Your task to perform on an android device: Open calendar and show me the fourth week of next month Image 0: 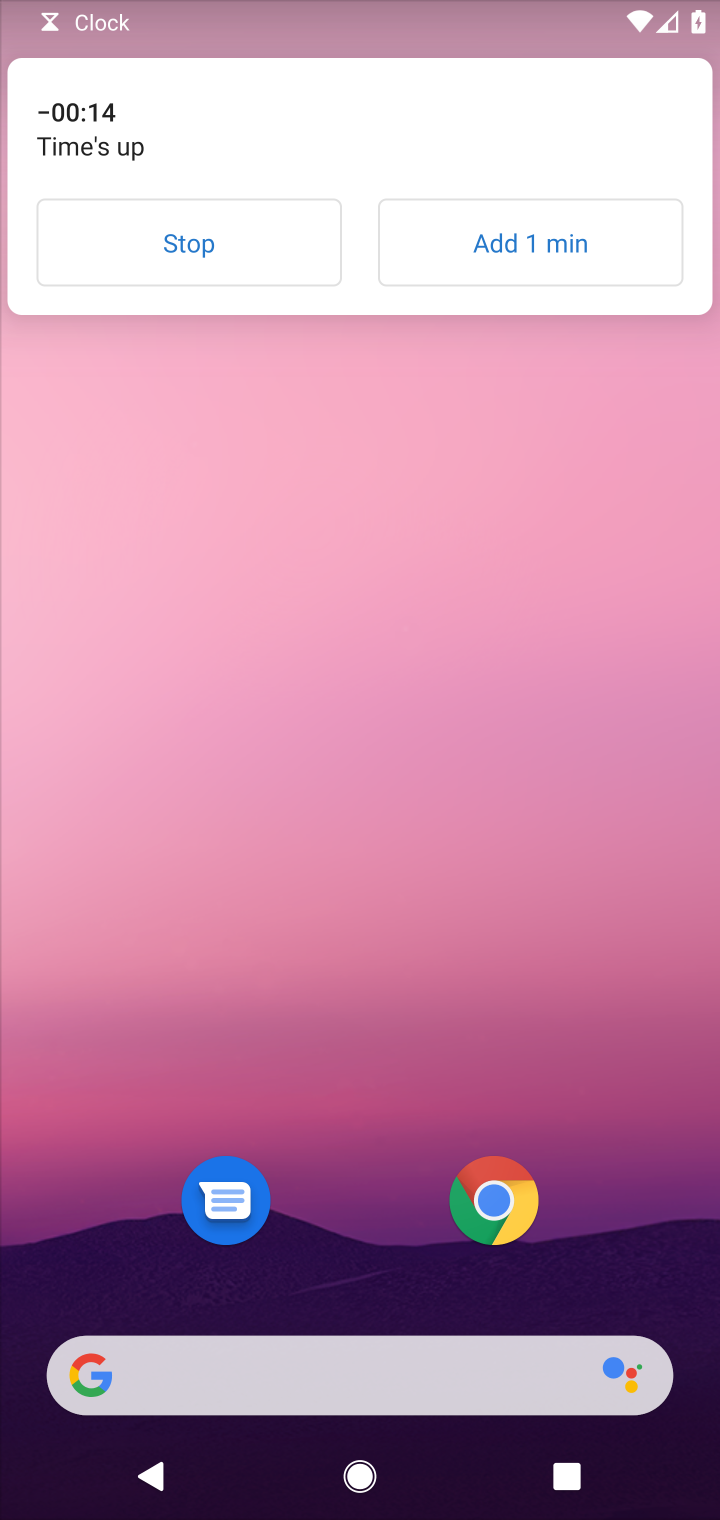
Step 0: click (219, 246)
Your task to perform on an android device: Open calendar and show me the fourth week of next month Image 1: 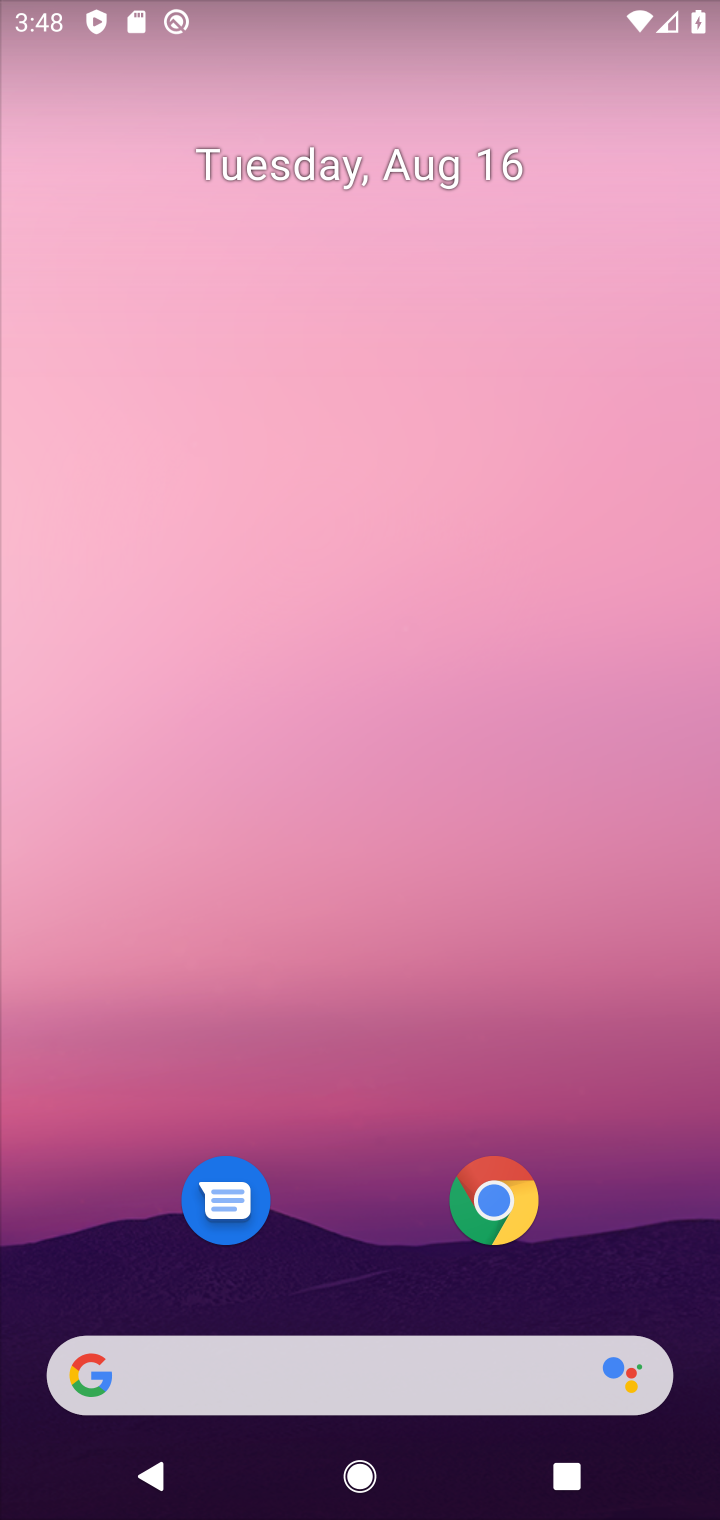
Step 1: click (332, 163)
Your task to perform on an android device: Open calendar and show me the fourth week of next month Image 2: 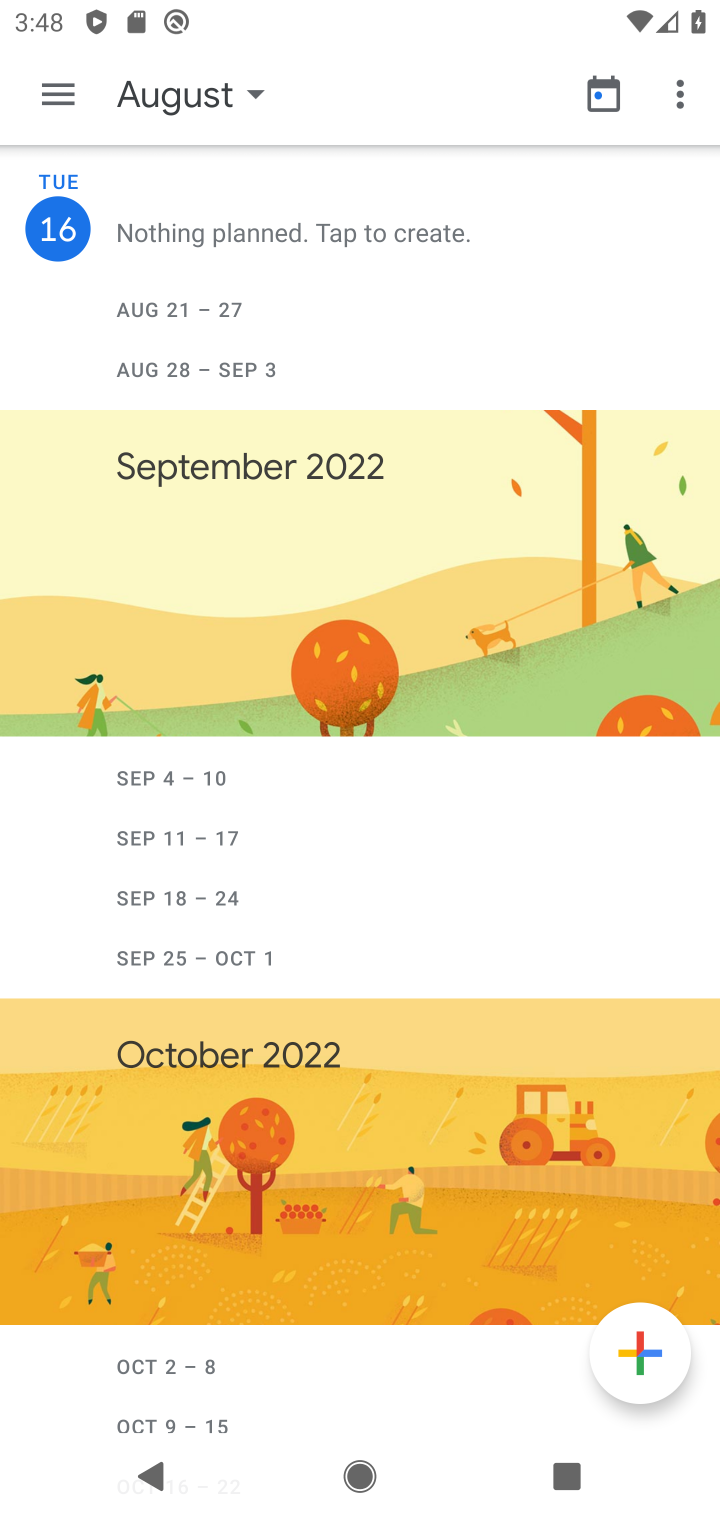
Step 2: click (217, 97)
Your task to perform on an android device: Open calendar and show me the fourth week of next month Image 3: 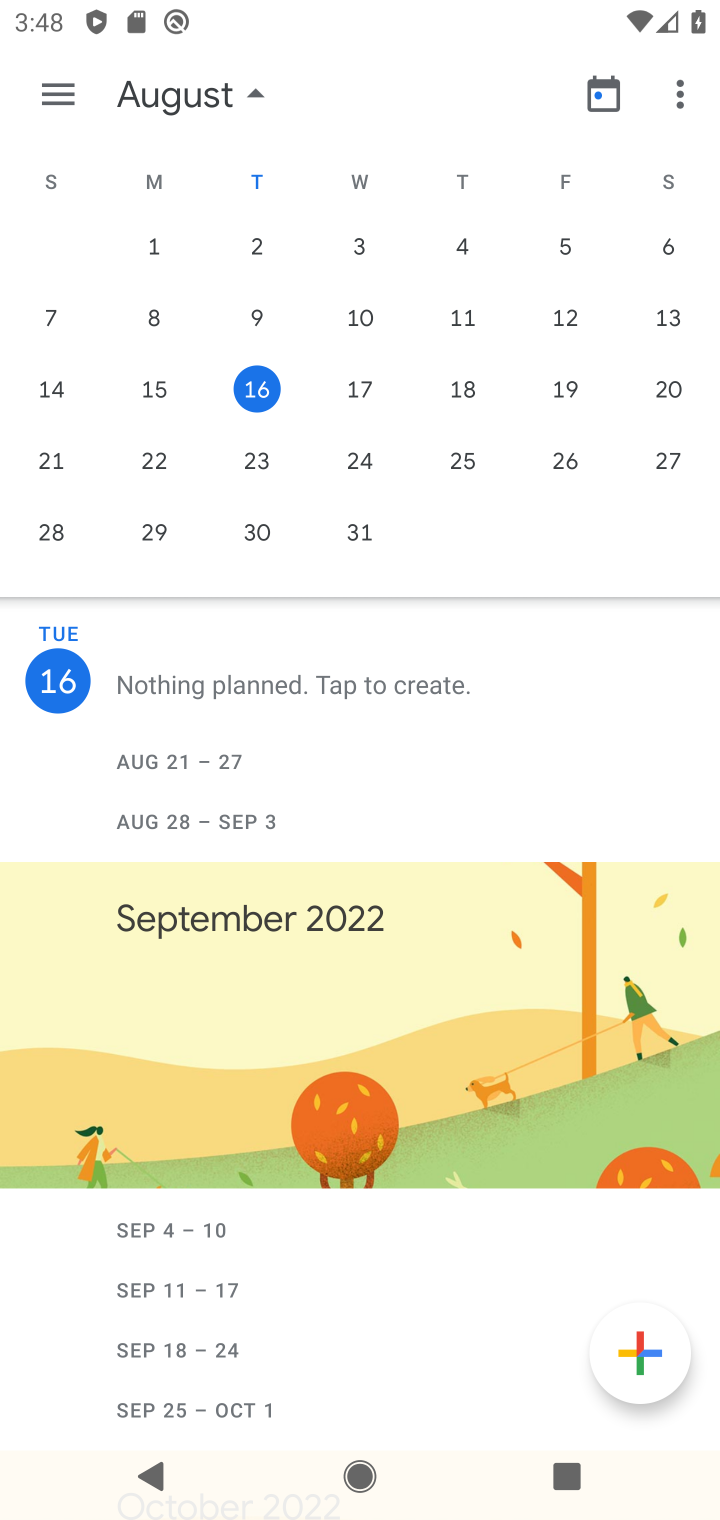
Step 3: drag from (666, 508) to (53, 351)
Your task to perform on an android device: Open calendar and show me the fourth week of next month Image 4: 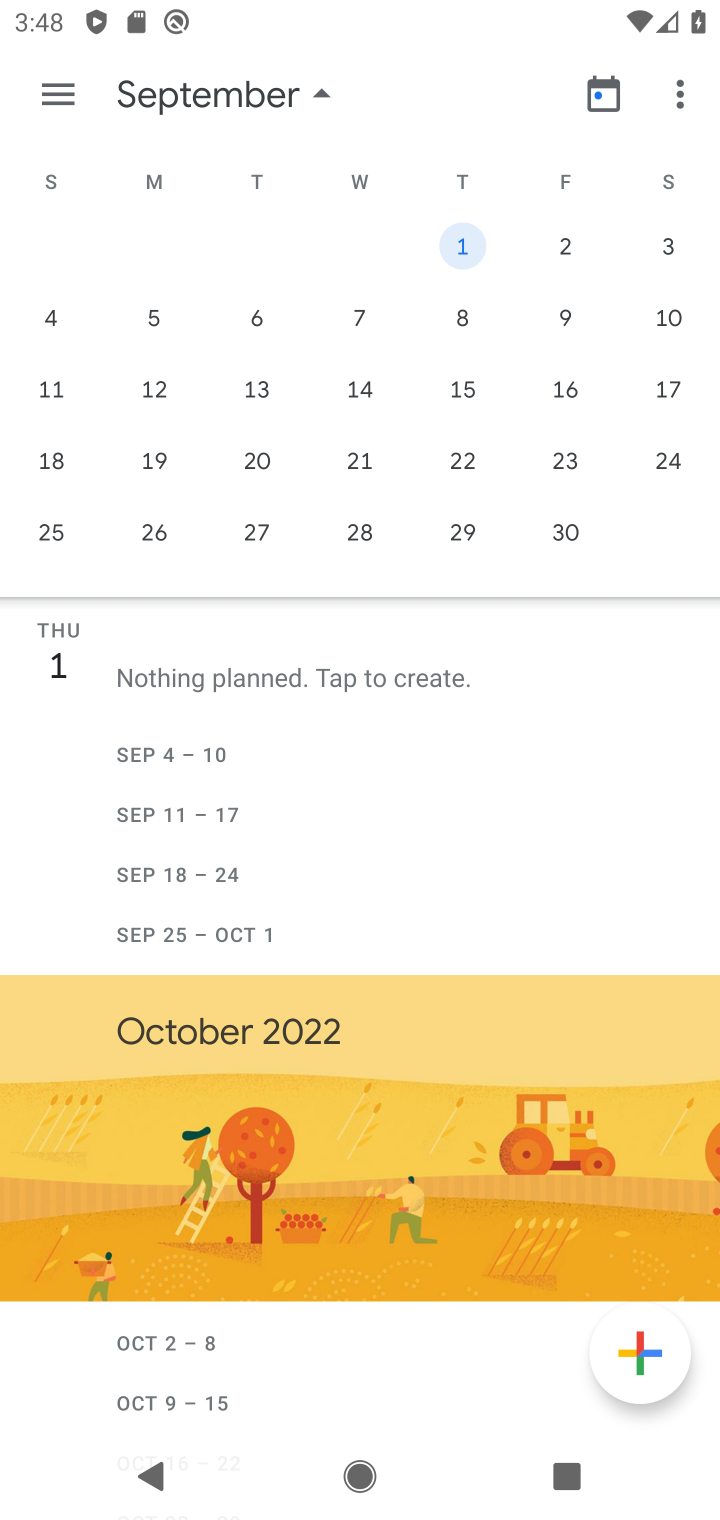
Step 4: click (468, 445)
Your task to perform on an android device: Open calendar and show me the fourth week of next month Image 5: 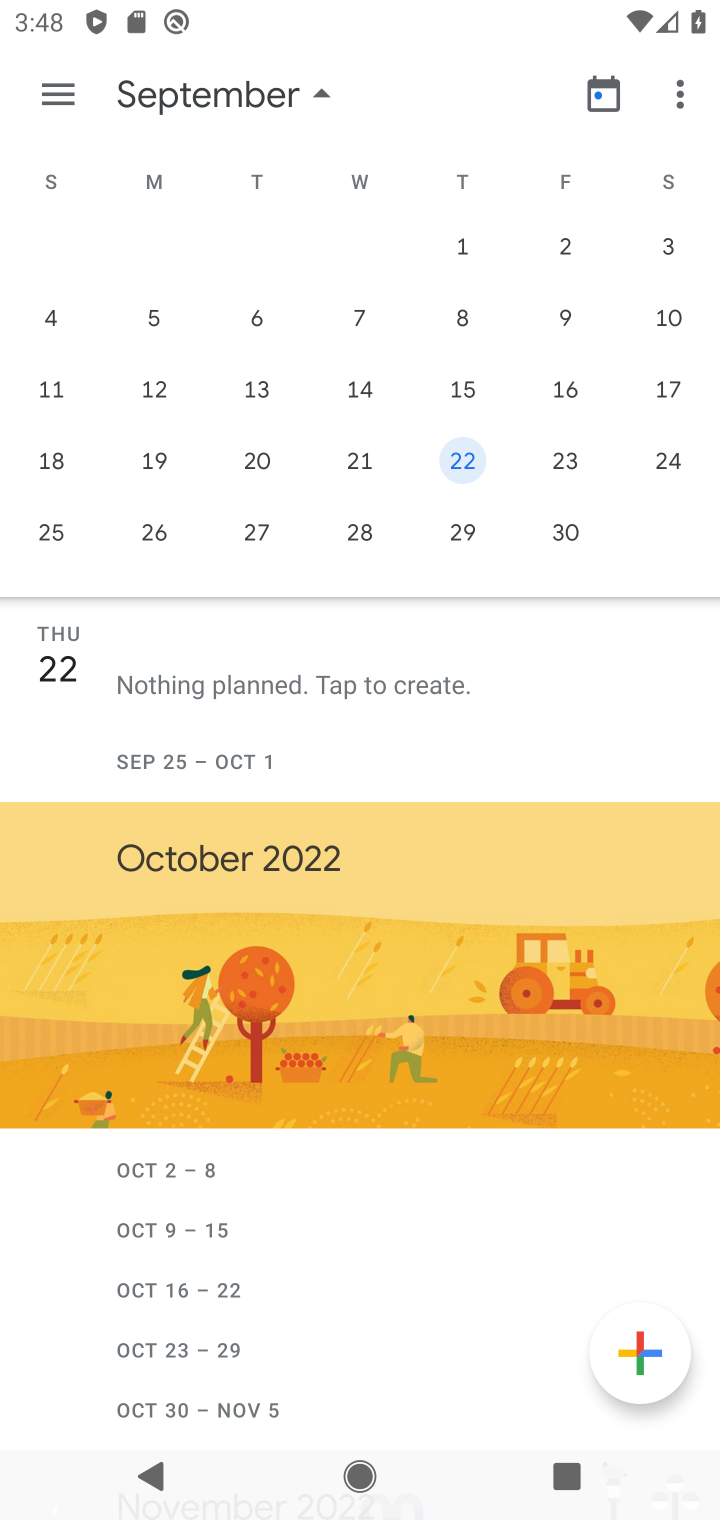
Step 5: task complete